Your task to perform on an android device: Check the news Image 0: 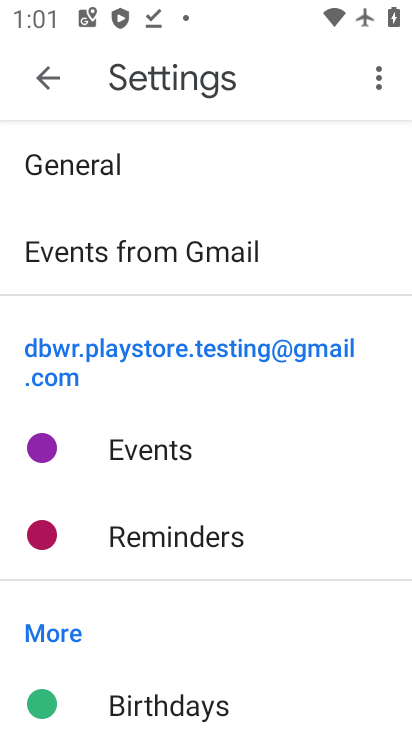
Step 0: press back button
Your task to perform on an android device: Check the news Image 1: 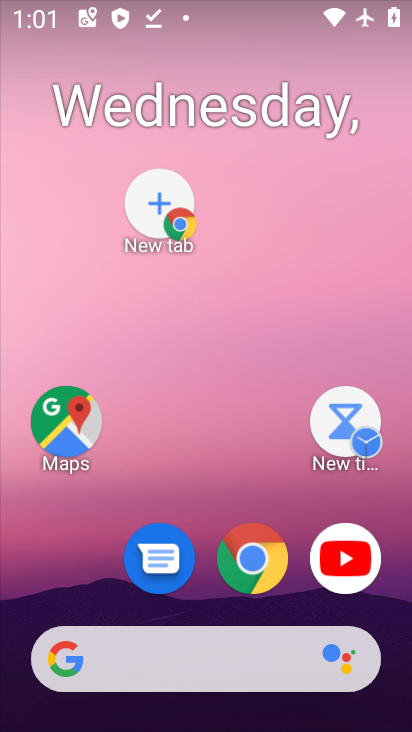
Step 1: click (267, 693)
Your task to perform on an android device: Check the news Image 2: 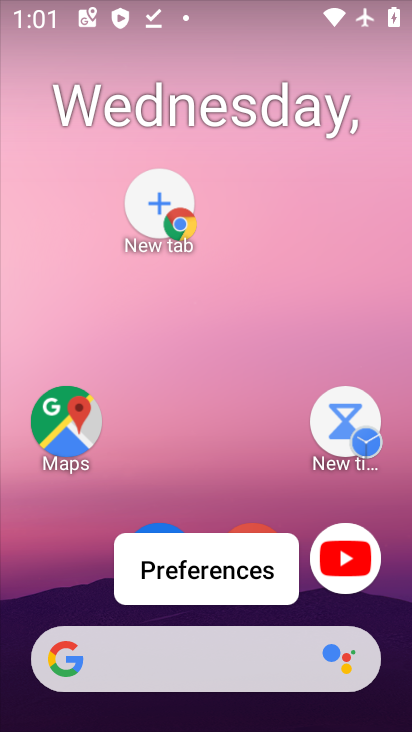
Step 2: drag from (14, 263) to (379, 369)
Your task to perform on an android device: Check the news Image 3: 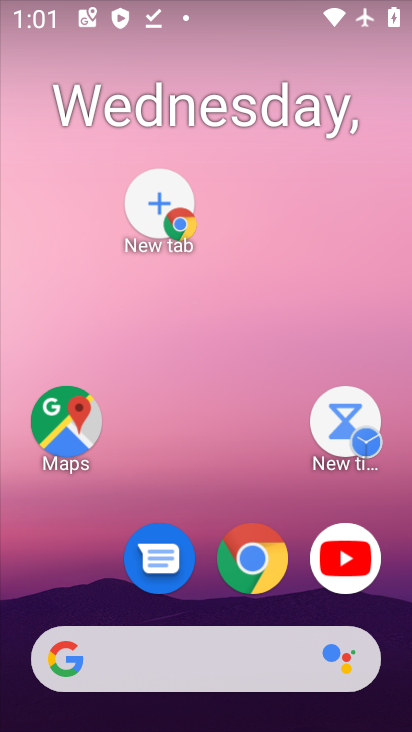
Step 3: drag from (6, 202) to (362, 348)
Your task to perform on an android device: Check the news Image 4: 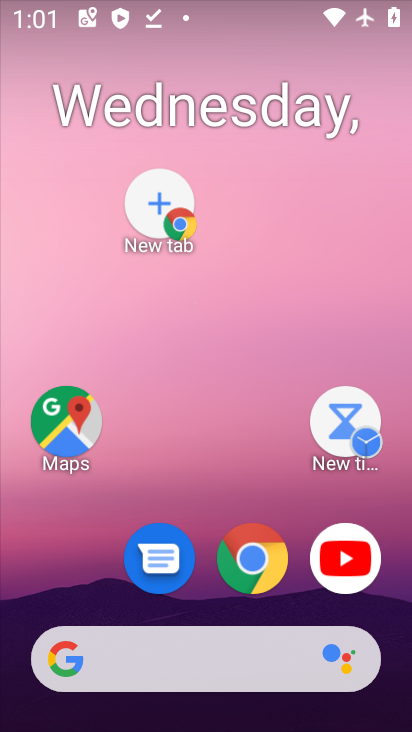
Step 4: drag from (12, 201) to (389, 341)
Your task to perform on an android device: Check the news Image 5: 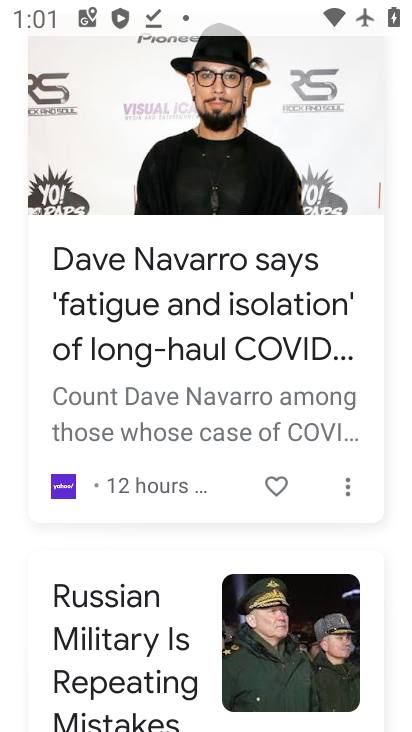
Step 5: drag from (207, 424) to (204, 193)
Your task to perform on an android device: Check the news Image 6: 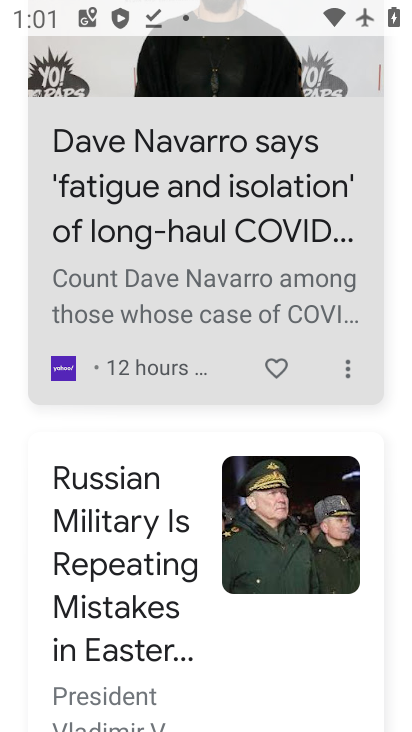
Step 6: drag from (220, 424) to (216, 186)
Your task to perform on an android device: Check the news Image 7: 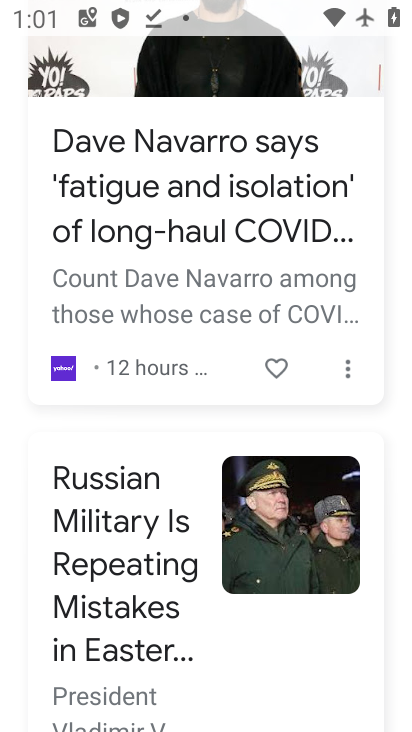
Step 7: drag from (210, 471) to (174, 254)
Your task to perform on an android device: Check the news Image 8: 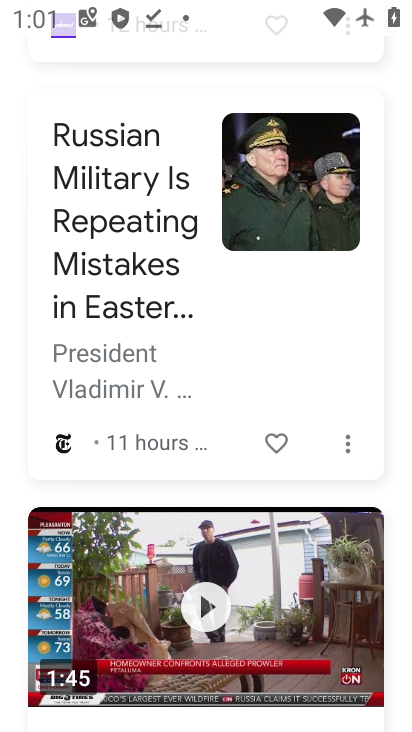
Step 8: drag from (183, 539) to (190, 309)
Your task to perform on an android device: Check the news Image 9: 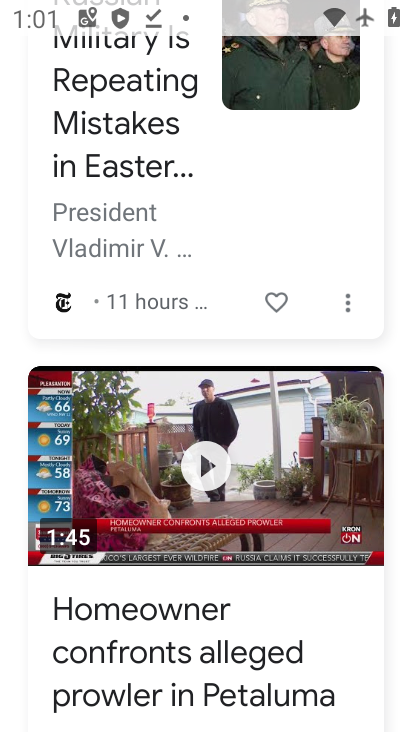
Step 9: drag from (206, 417) to (159, 170)
Your task to perform on an android device: Check the news Image 10: 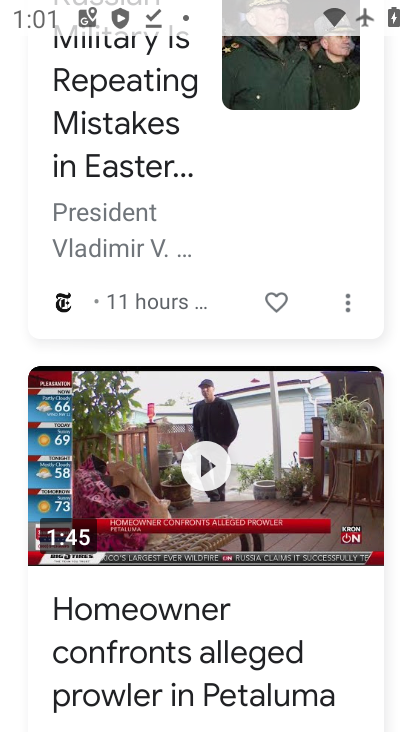
Step 10: drag from (202, 466) to (186, 206)
Your task to perform on an android device: Check the news Image 11: 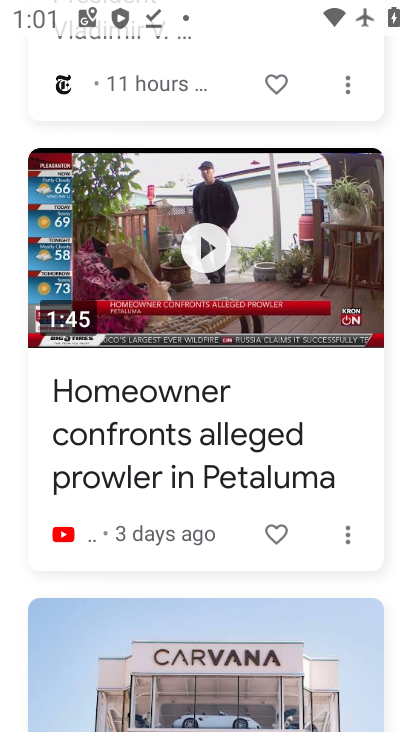
Step 11: drag from (277, 428) to (292, 218)
Your task to perform on an android device: Check the news Image 12: 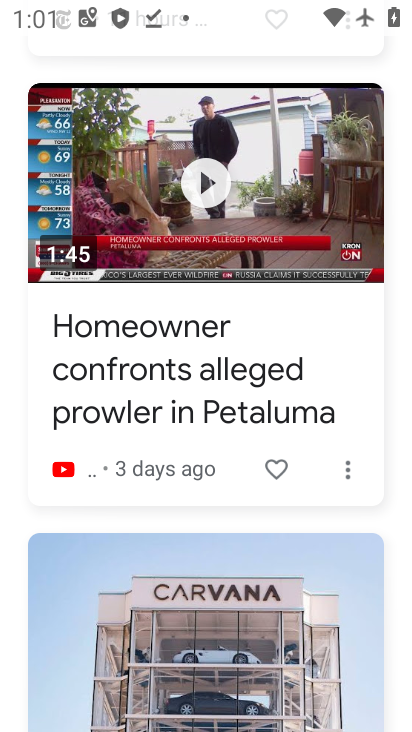
Step 12: drag from (280, 503) to (273, 99)
Your task to perform on an android device: Check the news Image 13: 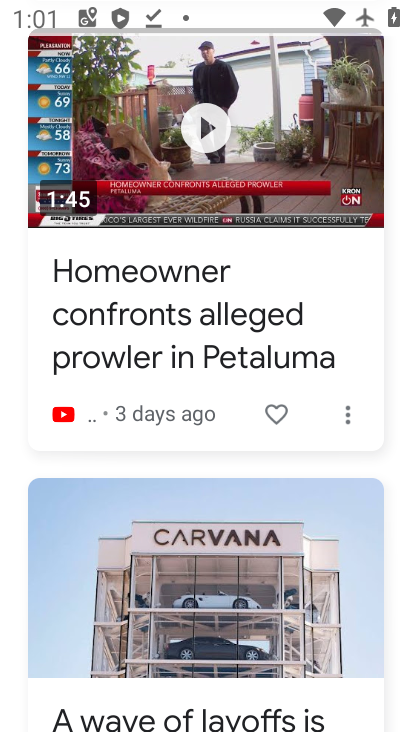
Step 13: drag from (238, 312) to (209, 133)
Your task to perform on an android device: Check the news Image 14: 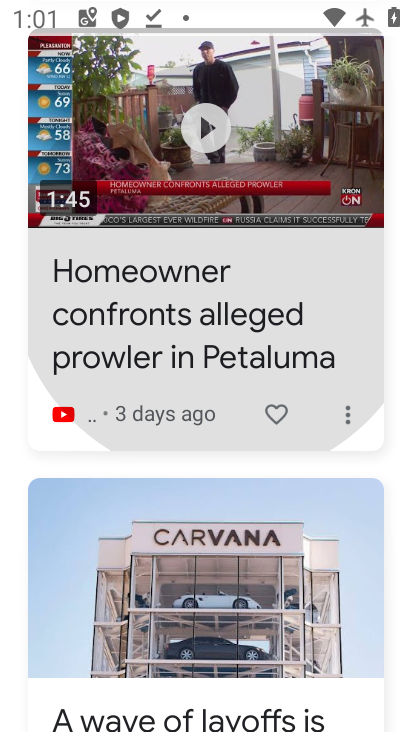
Step 14: drag from (208, 434) to (171, 127)
Your task to perform on an android device: Check the news Image 15: 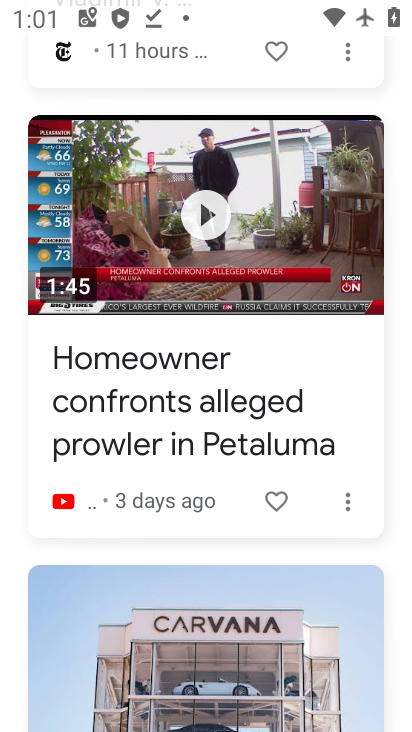
Step 15: drag from (204, 462) to (173, 226)
Your task to perform on an android device: Check the news Image 16: 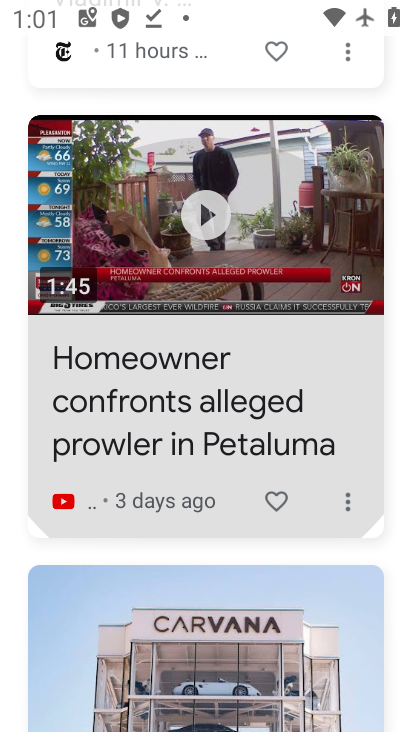
Step 16: drag from (233, 486) to (233, 284)
Your task to perform on an android device: Check the news Image 17: 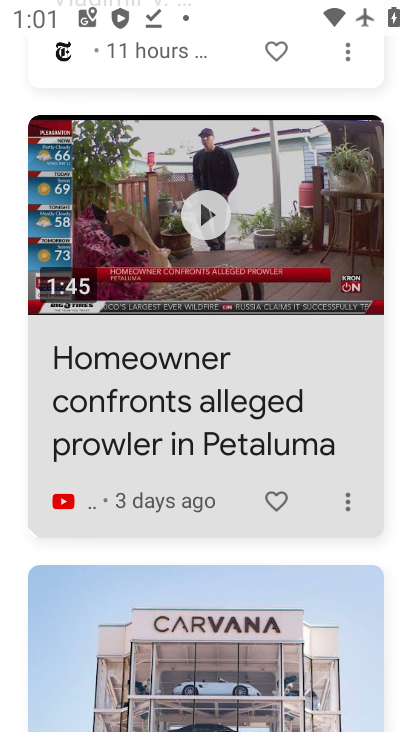
Step 17: drag from (272, 455) to (272, 169)
Your task to perform on an android device: Check the news Image 18: 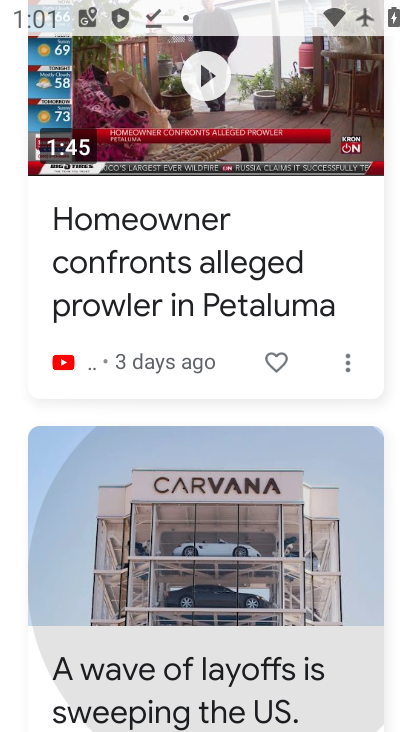
Step 18: drag from (272, 518) to (213, 519)
Your task to perform on an android device: Check the news Image 19: 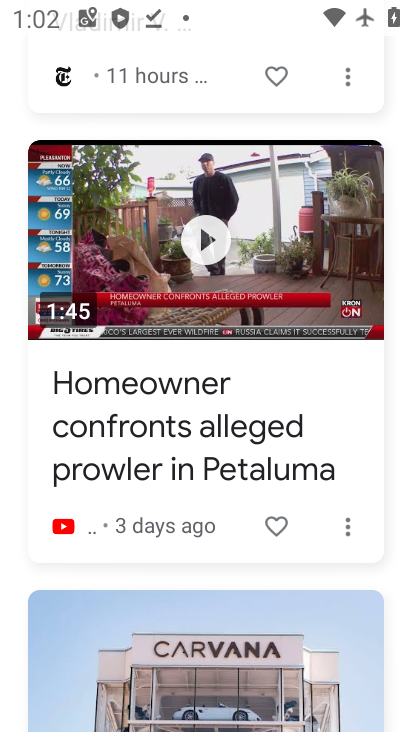
Step 19: drag from (132, 242) to (166, 539)
Your task to perform on an android device: Check the news Image 20: 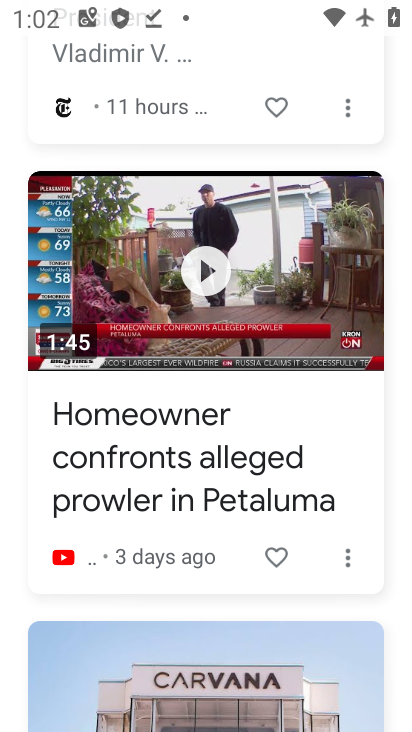
Step 20: drag from (92, 285) to (129, 552)
Your task to perform on an android device: Check the news Image 21: 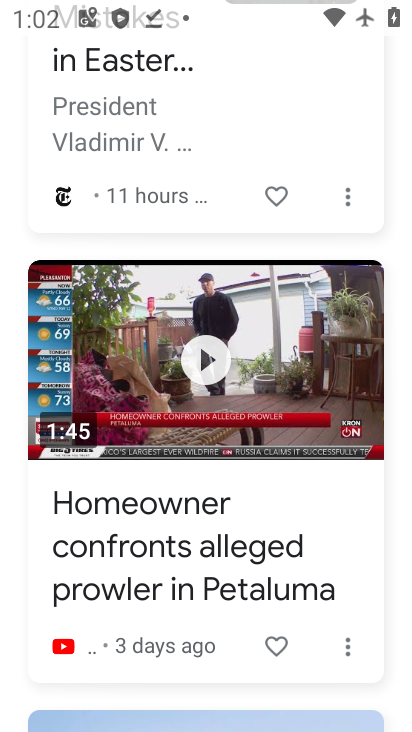
Step 21: click (157, 491)
Your task to perform on an android device: Check the news Image 22: 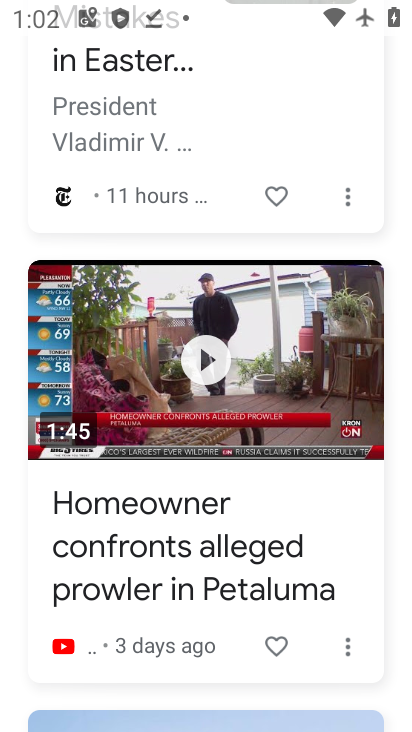
Step 22: drag from (129, 379) to (160, 468)
Your task to perform on an android device: Check the news Image 23: 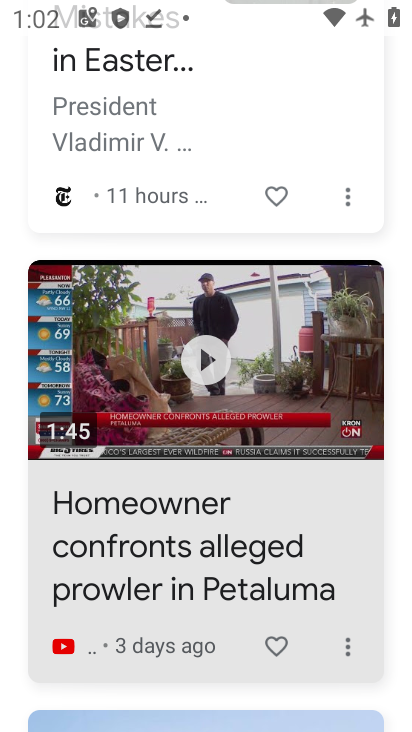
Step 23: drag from (140, 349) to (190, 534)
Your task to perform on an android device: Check the news Image 24: 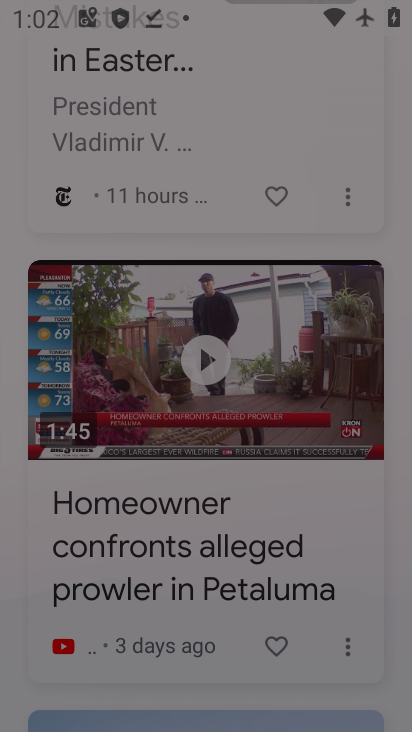
Step 24: drag from (145, 324) to (239, 592)
Your task to perform on an android device: Check the news Image 25: 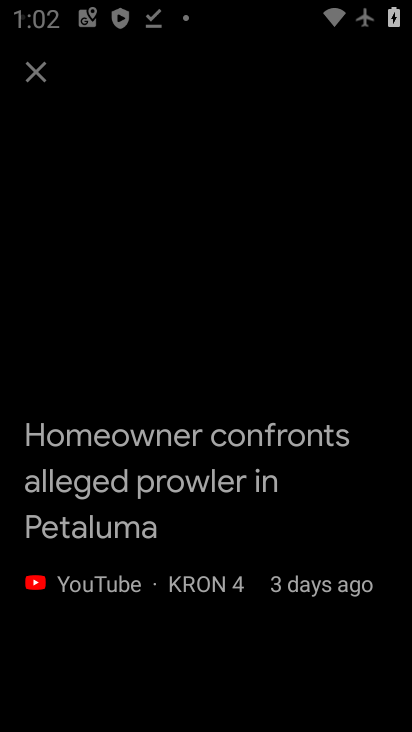
Step 25: drag from (163, 332) to (197, 336)
Your task to perform on an android device: Check the news Image 26: 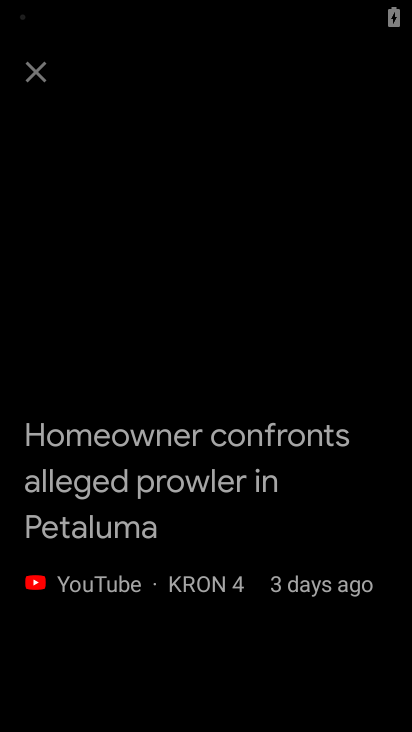
Step 26: click (35, 79)
Your task to perform on an android device: Check the news Image 27: 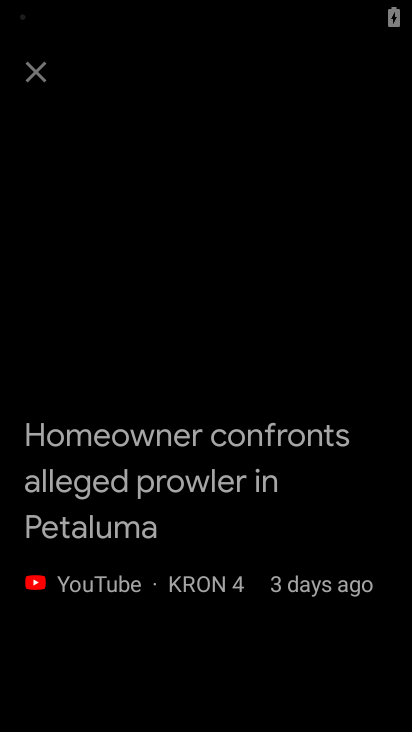
Step 27: click (35, 79)
Your task to perform on an android device: Check the news Image 28: 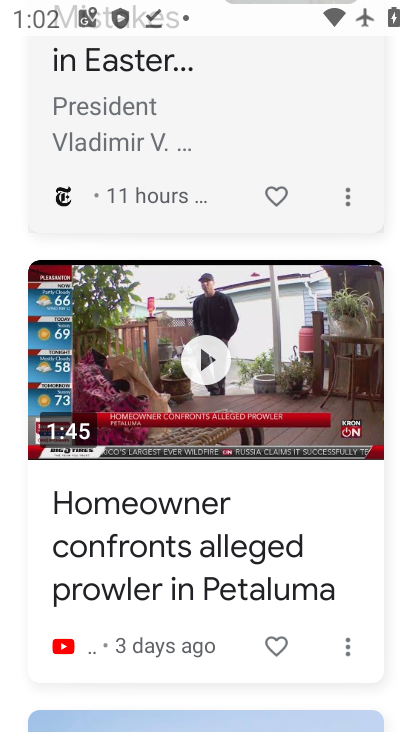
Step 28: click (38, 73)
Your task to perform on an android device: Check the news Image 29: 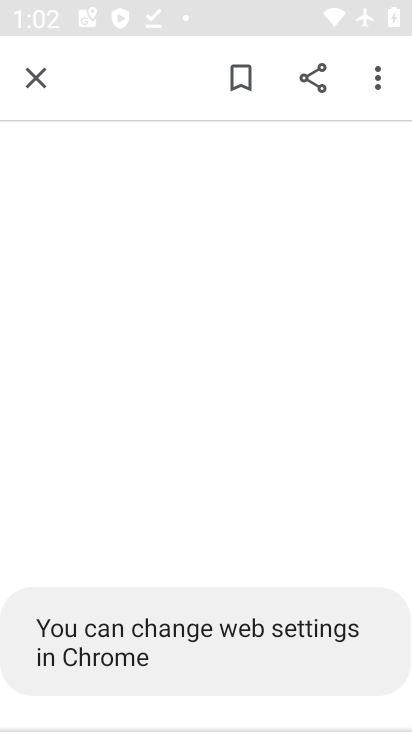
Step 29: task complete